Your task to perform on an android device: see creations saved in the google photos Image 0: 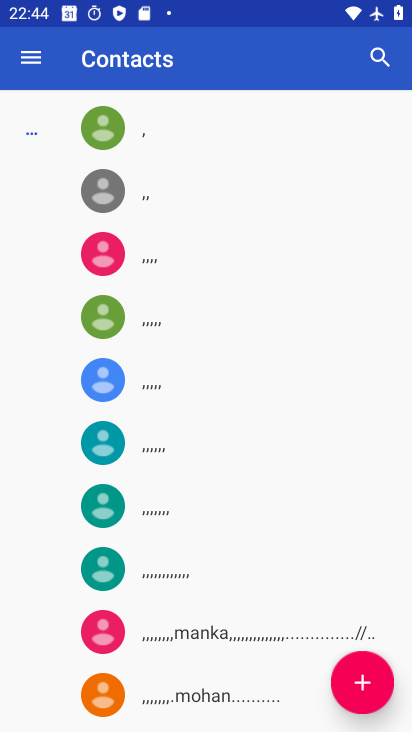
Step 0: press home button
Your task to perform on an android device: see creations saved in the google photos Image 1: 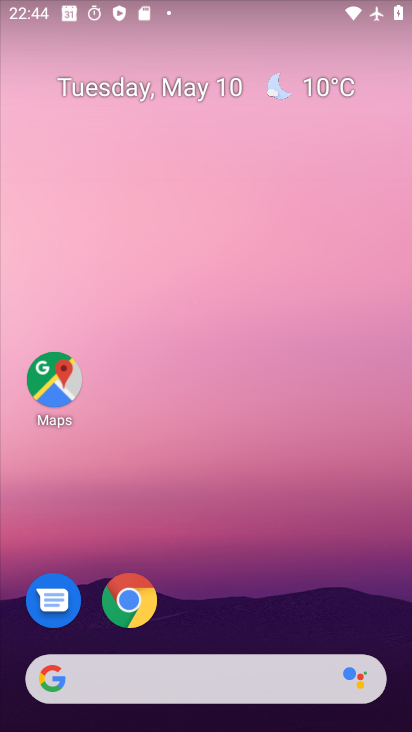
Step 1: drag from (289, 633) to (304, 265)
Your task to perform on an android device: see creations saved in the google photos Image 2: 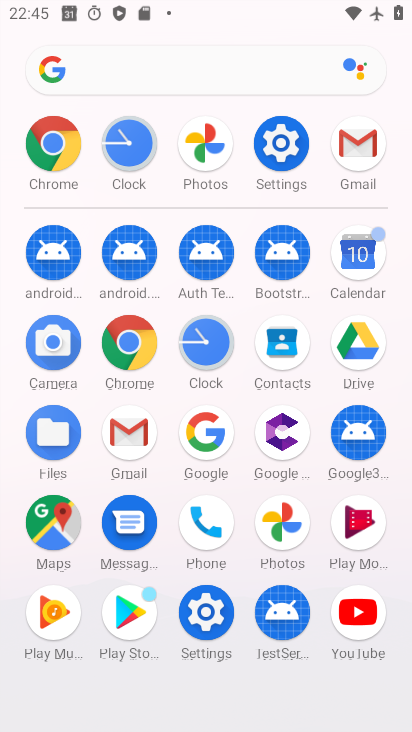
Step 2: click (281, 510)
Your task to perform on an android device: see creations saved in the google photos Image 3: 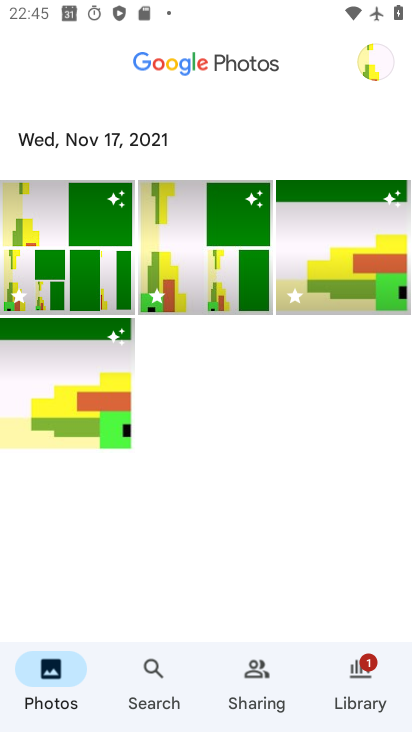
Step 3: task complete